Your task to perform on an android device: Find coffee shops on Maps Image 0: 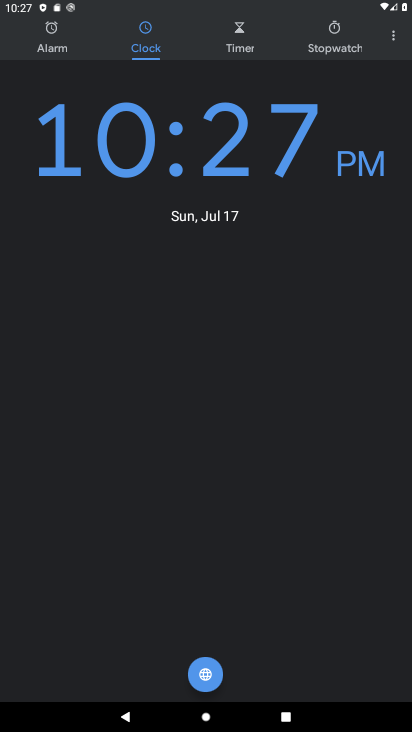
Step 0: press home button
Your task to perform on an android device: Find coffee shops on Maps Image 1: 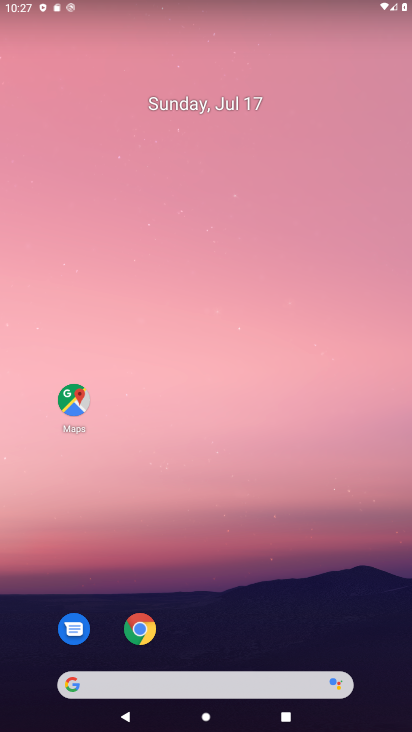
Step 1: click (76, 407)
Your task to perform on an android device: Find coffee shops on Maps Image 2: 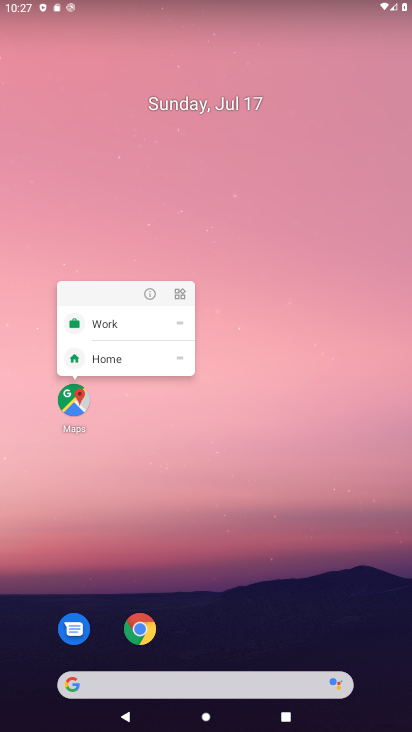
Step 2: click (70, 410)
Your task to perform on an android device: Find coffee shops on Maps Image 3: 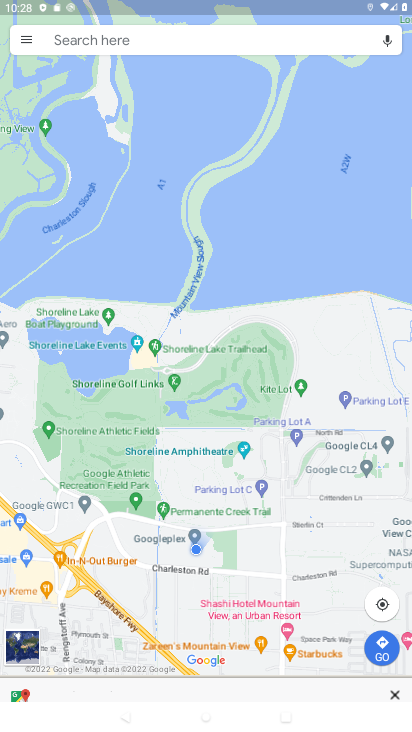
Step 3: click (183, 47)
Your task to perform on an android device: Find coffee shops on Maps Image 4: 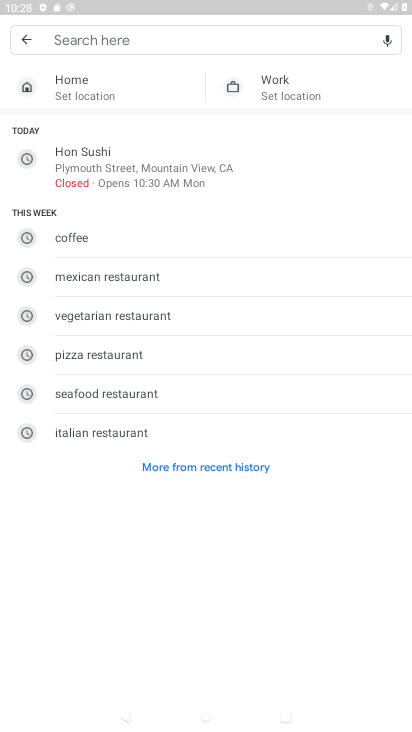
Step 4: click (72, 250)
Your task to perform on an android device: Find coffee shops on Maps Image 5: 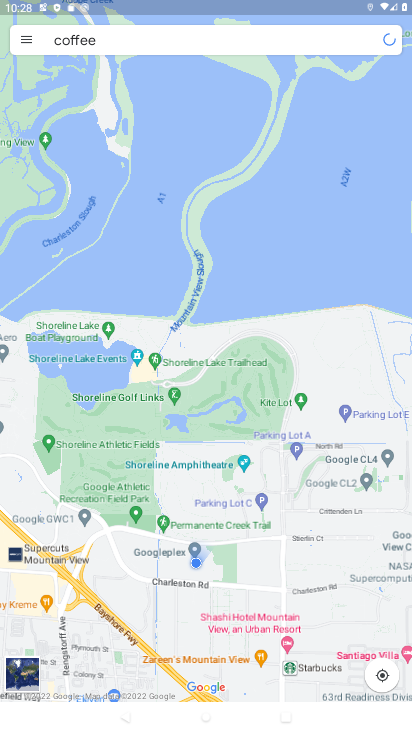
Step 5: task complete